Your task to perform on an android device: turn on airplane mode Image 0: 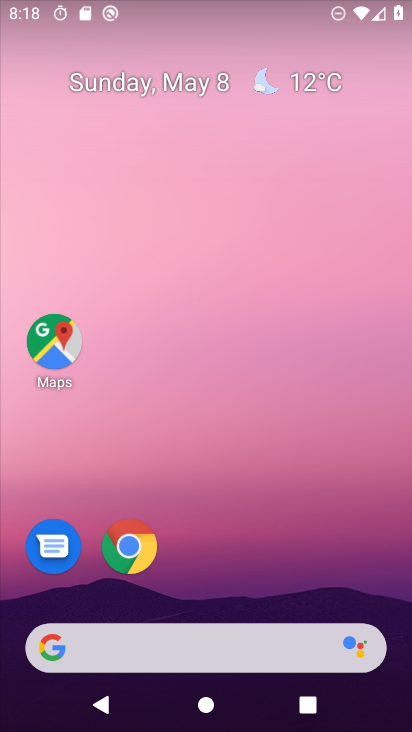
Step 0: drag from (322, 535) to (318, 0)
Your task to perform on an android device: turn on airplane mode Image 1: 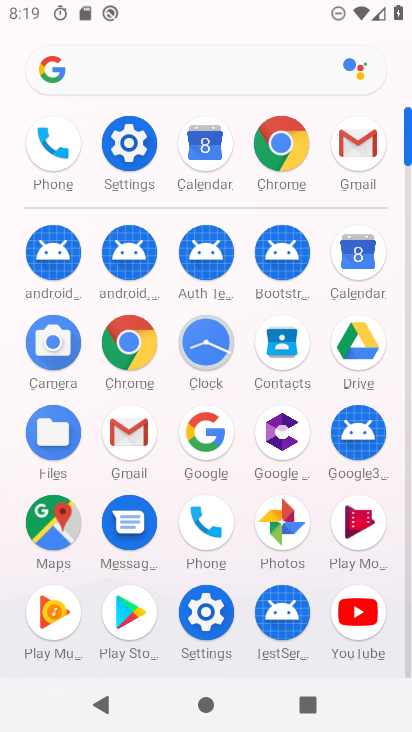
Step 1: click (126, 136)
Your task to perform on an android device: turn on airplane mode Image 2: 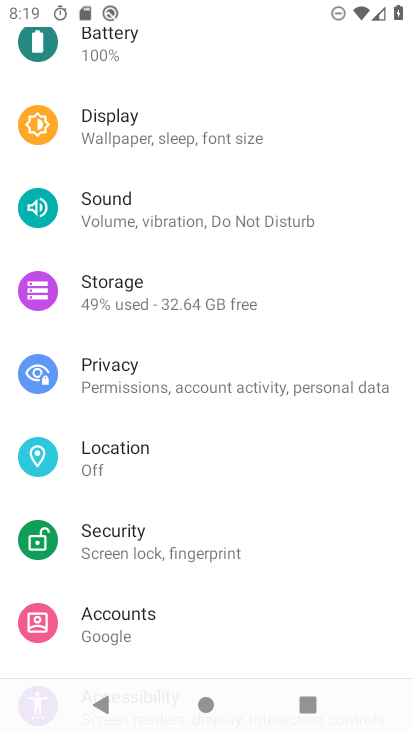
Step 2: drag from (265, 268) to (299, 722)
Your task to perform on an android device: turn on airplane mode Image 3: 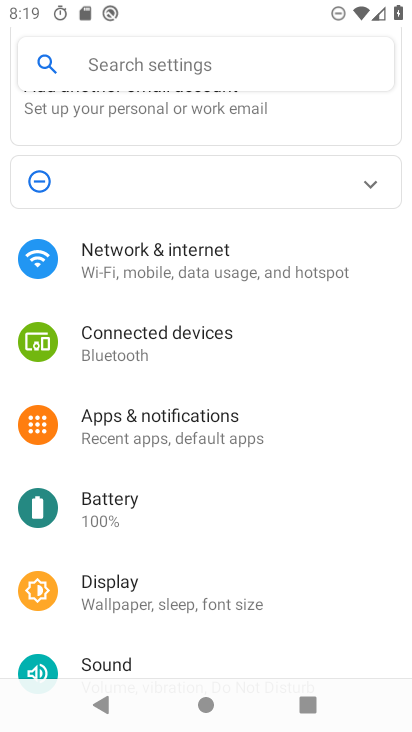
Step 3: click (281, 270)
Your task to perform on an android device: turn on airplane mode Image 4: 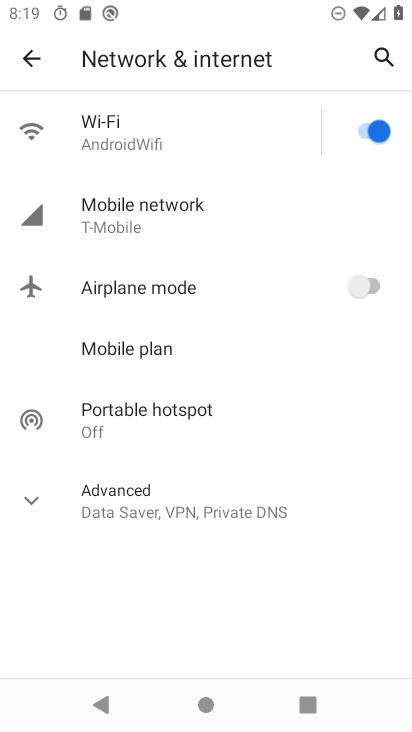
Step 4: click (371, 271)
Your task to perform on an android device: turn on airplane mode Image 5: 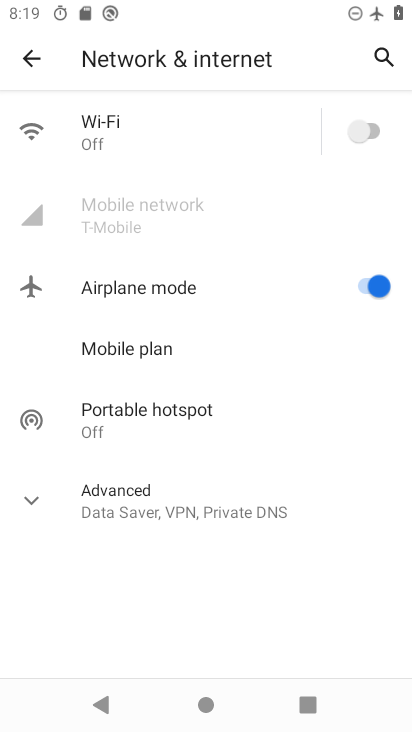
Step 5: task complete